Your task to perform on an android device: turn on wifi Image 0: 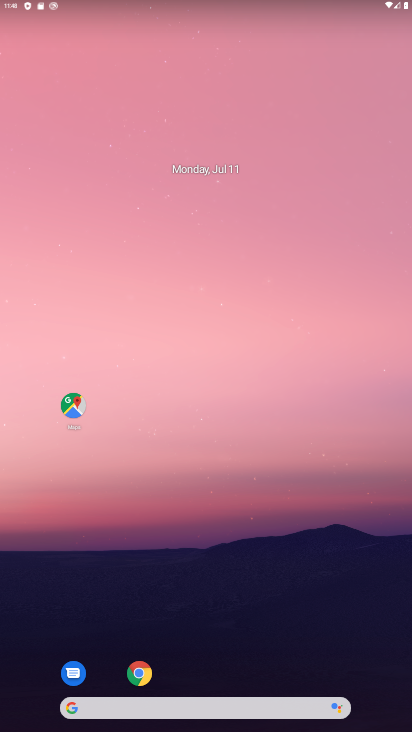
Step 0: drag from (303, 605) to (222, 154)
Your task to perform on an android device: turn on wifi Image 1: 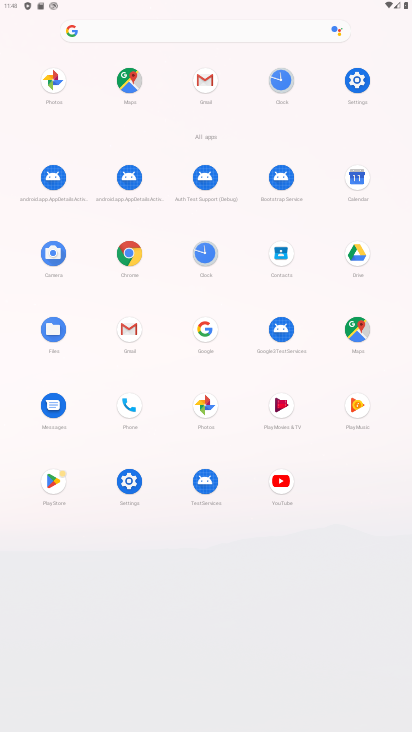
Step 1: click (359, 77)
Your task to perform on an android device: turn on wifi Image 2: 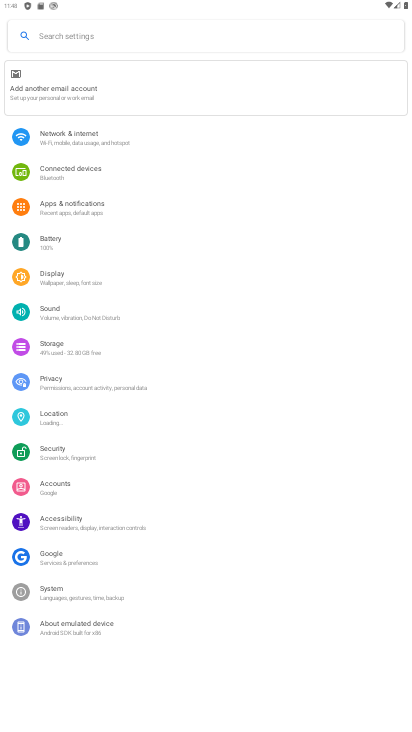
Step 2: click (219, 138)
Your task to perform on an android device: turn on wifi Image 3: 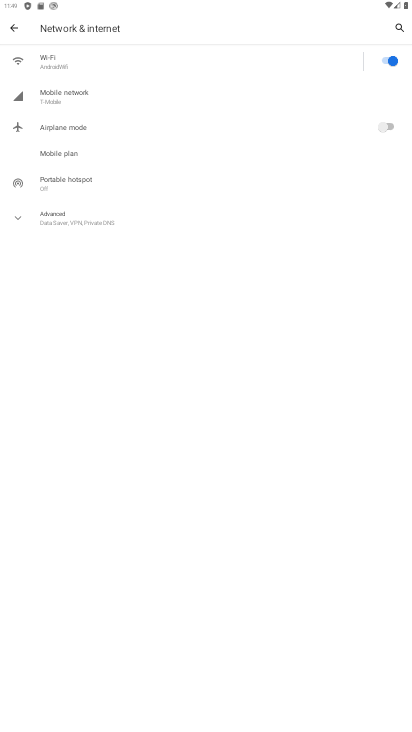
Step 3: task complete